Your task to perform on an android device: create a new album in the google photos Image 0: 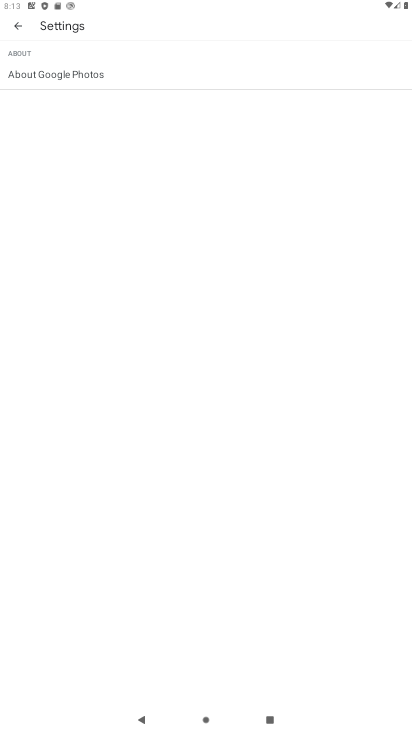
Step 0: press home button
Your task to perform on an android device: create a new album in the google photos Image 1: 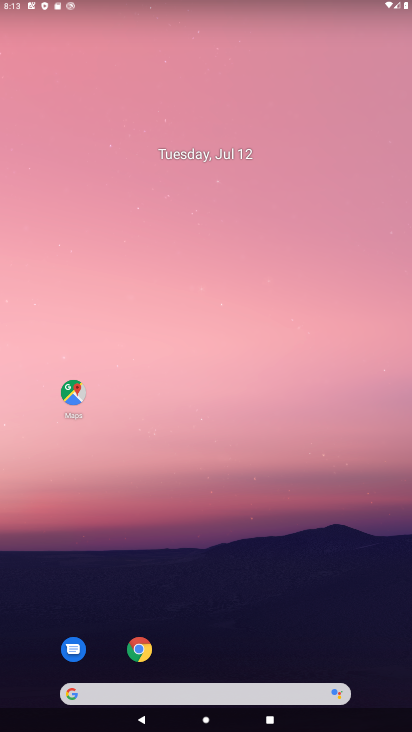
Step 1: drag from (233, 641) to (318, 100)
Your task to perform on an android device: create a new album in the google photos Image 2: 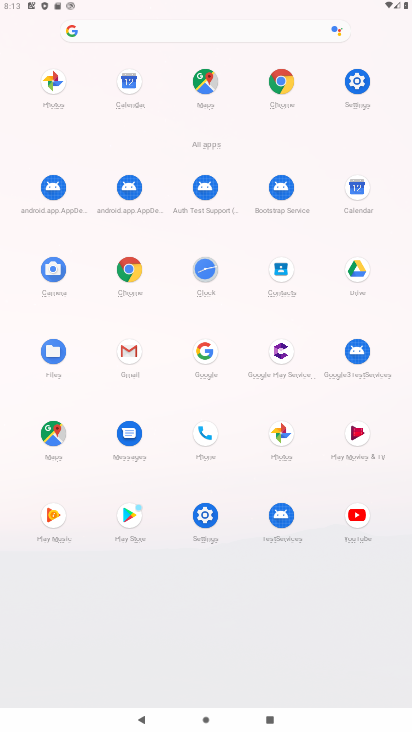
Step 2: click (283, 432)
Your task to perform on an android device: create a new album in the google photos Image 3: 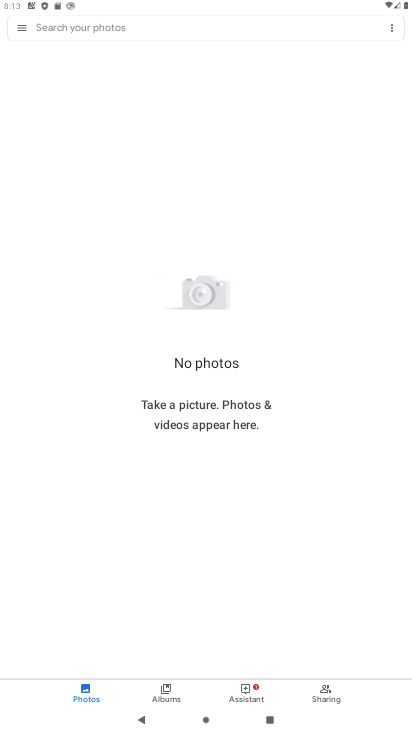
Step 3: click (163, 695)
Your task to perform on an android device: create a new album in the google photos Image 4: 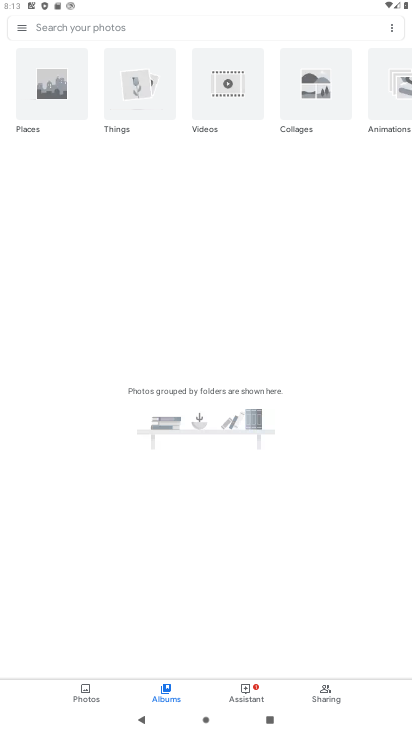
Step 4: task complete